Your task to perform on an android device: open a bookmark in the chrome app Image 0: 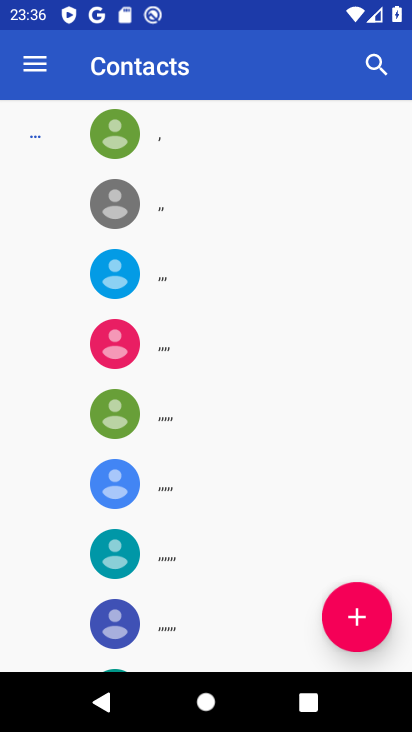
Step 0: press back button
Your task to perform on an android device: open a bookmark in the chrome app Image 1: 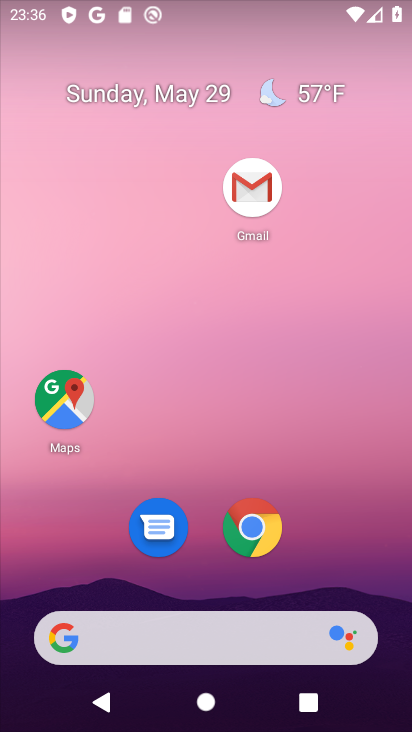
Step 1: drag from (360, 565) to (335, 173)
Your task to perform on an android device: open a bookmark in the chrome app Image 2: 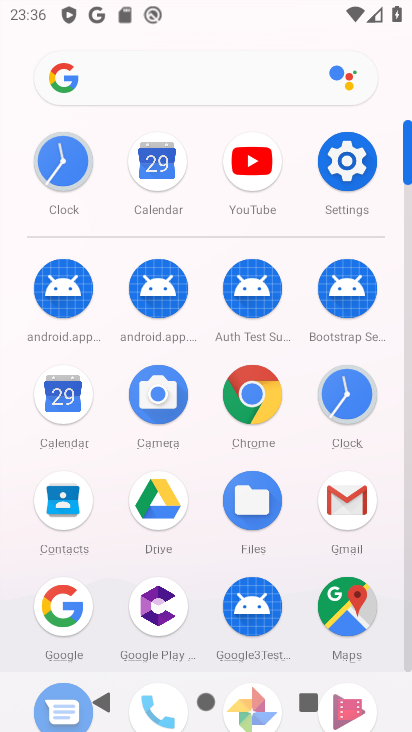
Step 2: click (252, 392)
Your task to perform on an android device: open a bookmark in the chrome app Image 3: 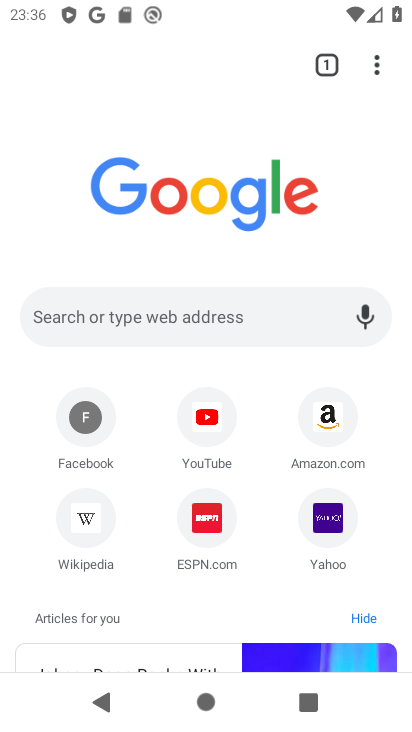
Step 3: click (376, 63)
Your task to perform on an android device: open a bookmark in the chrome app Image 4: 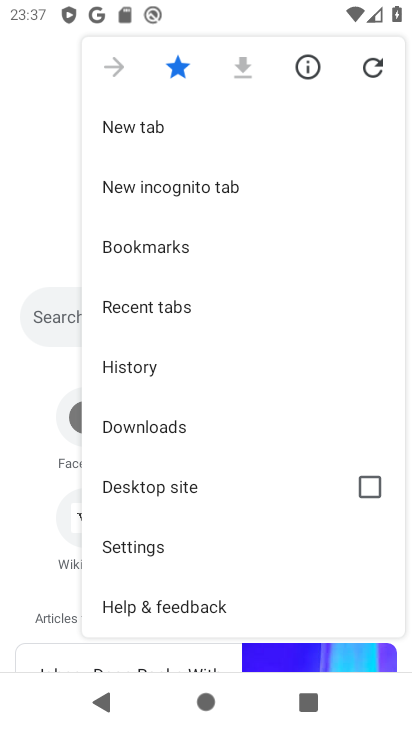
Step 4: click (159, 253)
Your task to perform on an android device: open a bookmark in the chrome app Image 5: 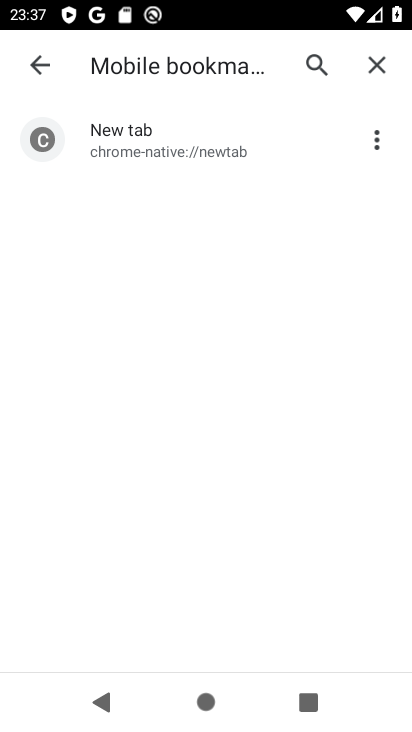
Step 5: task complete